Your task to perform on an android device: turn on the 24-hour format for clock Image 0: 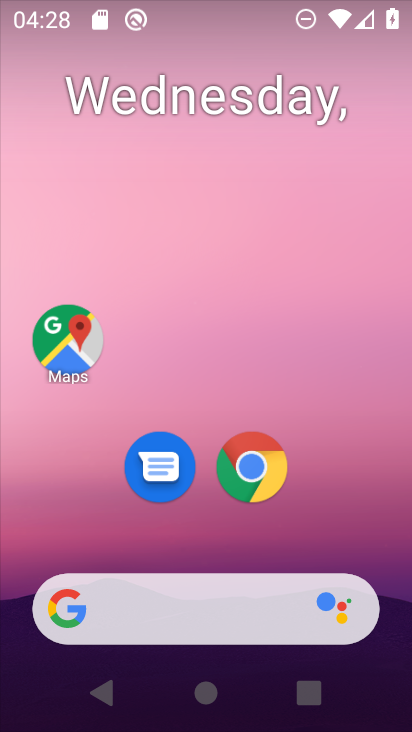
Step 0: drag from (396, 599) to (340, 159)
Your task to perform on an android device: turn on the 24-hour format for clock Image 1: 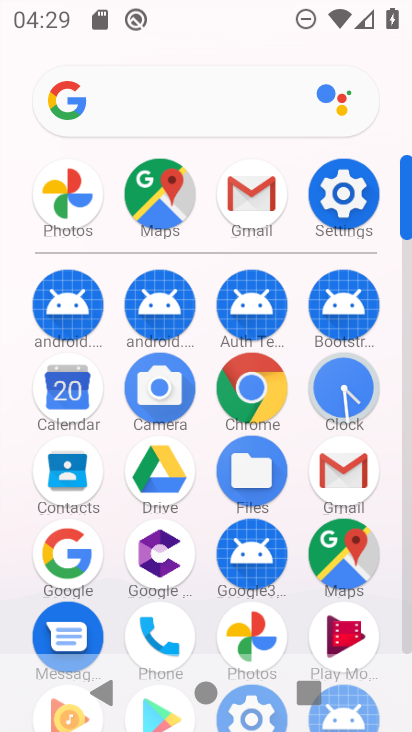
Step 1: click (409, 643)
Your task to perform on an android device: turn on the 24-hour format for clock Image 2: 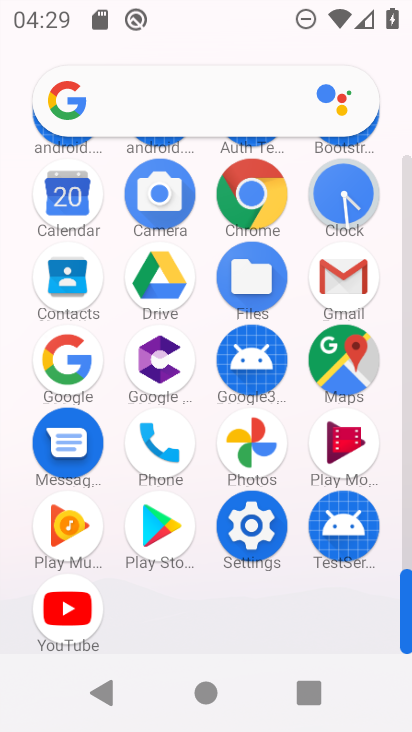
Step 2: click (342, 191)
Your task to perform on an android device: turn on the 24-hour format for clock Image 3: 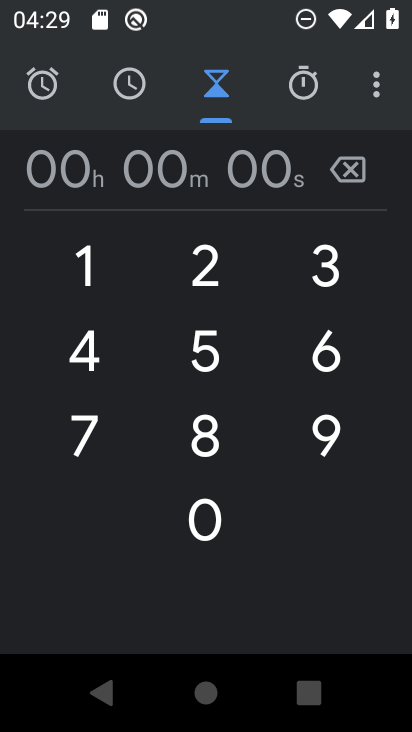
Step 3: click (377, 86)
Your task to perform on an android device: turn on the 24-hour format for clock Image 4: 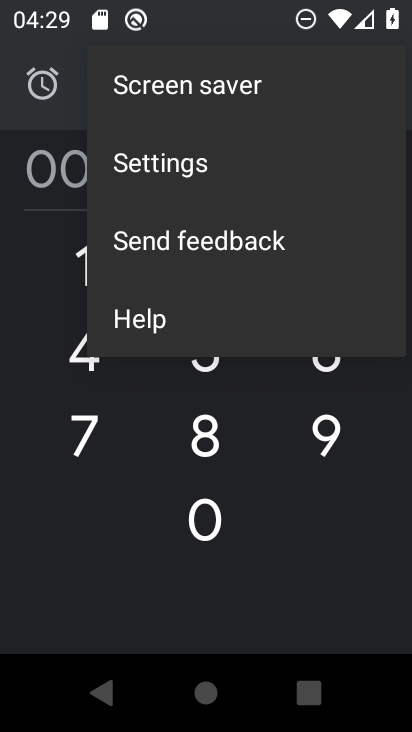
Step 4: click (144, 166)
Your task to perform on an android device: turn on the 24-hour format for clock Image 5: 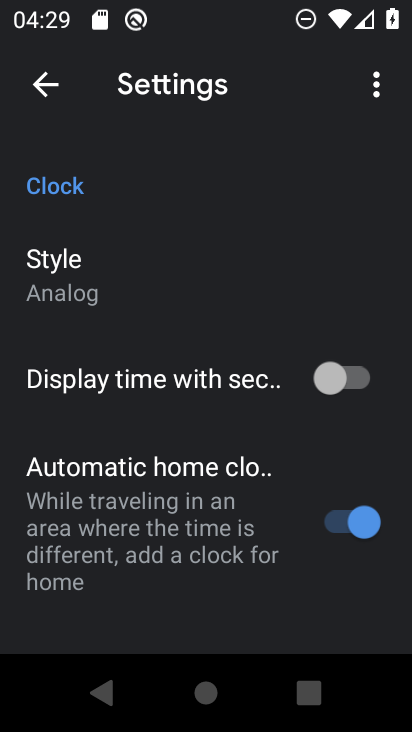
Step 5: drag from (277, 510) to (316, 208)
Your task to perform on an android device: turn on the 24-hour format for clock Image 6: 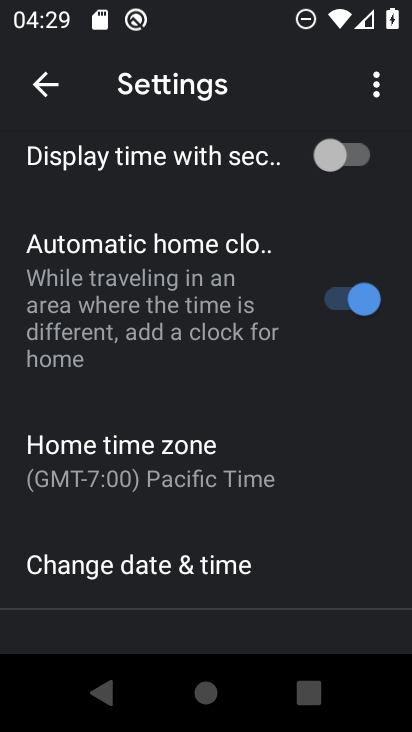
Step 6: drag from (251, 555) to (280, 192)
Your task to perform on an android device: turn on the 24-hour format for clock Image 7: 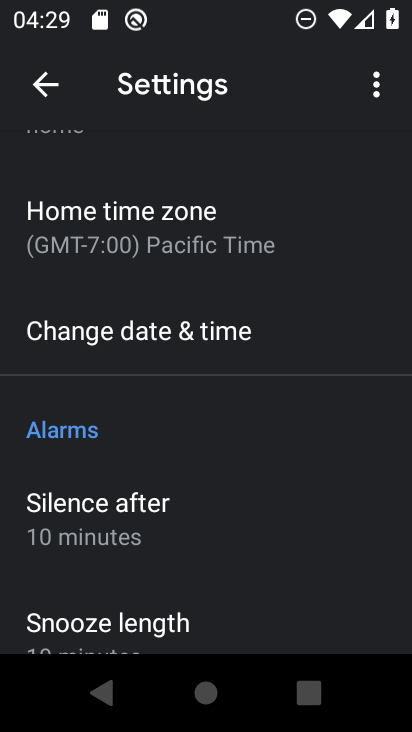
Step 7: click (70, 333)
Your task to perform on an android device: turn on the 24-hour format for clock Image 8: 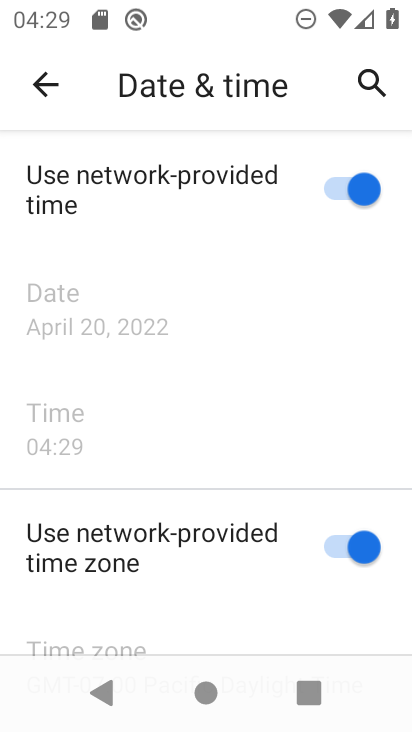
Step 8: task complete